Your task to perform on an android device: Go to settings Image 0: 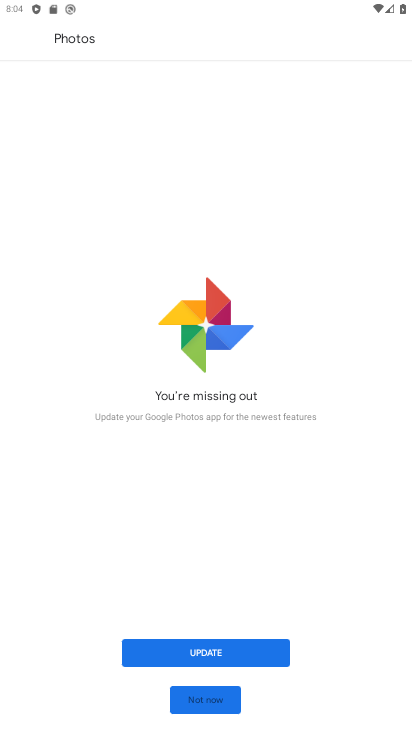
Step 0: press home button
Your task to perform on an android device: Go to settings Image 1: 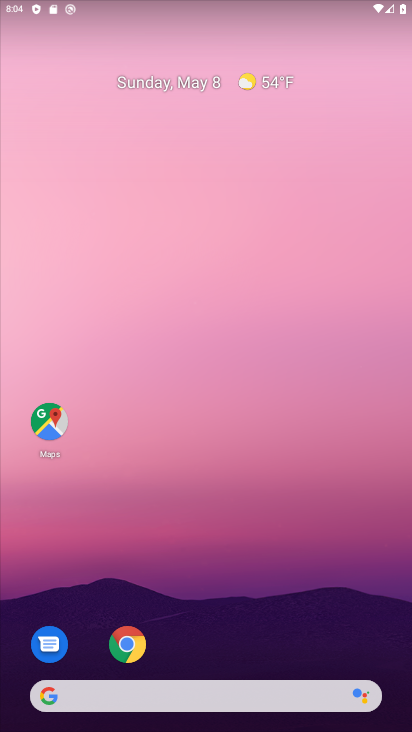
Step 1: drag from (191, 643) to (189, 436)
Your task to perform on an android device: Go to settings Image 2: 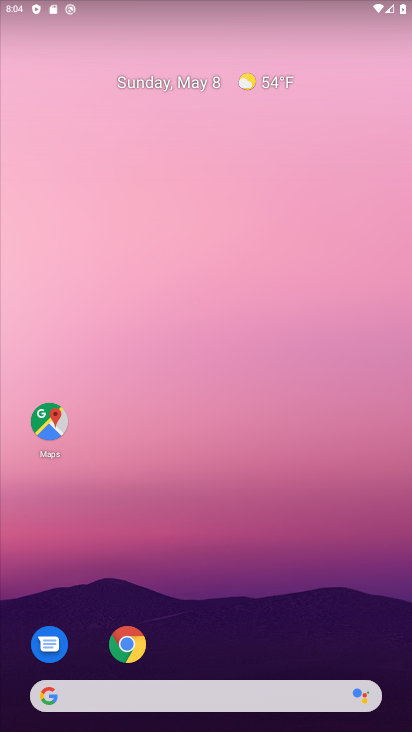
Step 2: drag from (242, 665) to (235, 369)
Your task to perform on an android device: Go to settings Image 3: 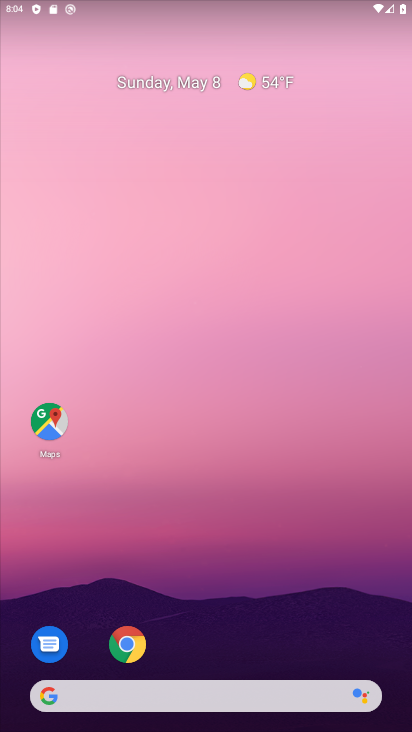
Step 3: drag from (190, 661) to (210, 262)
Your task to perform on an android device: Go to settings Image 4: 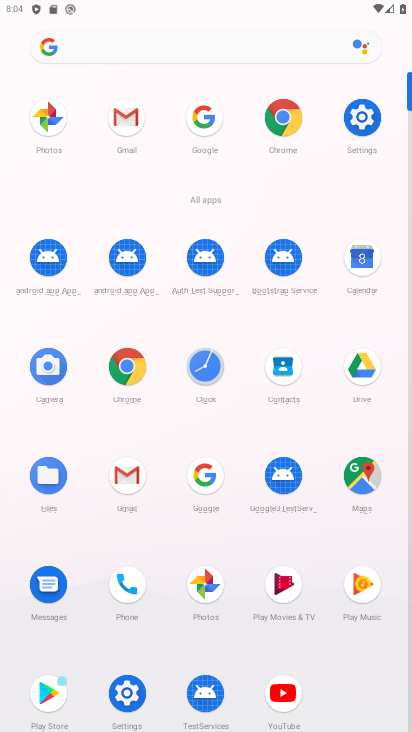
Step 4: click (357, 123)
Your task to perform on an android device: Go to settings Image 5: 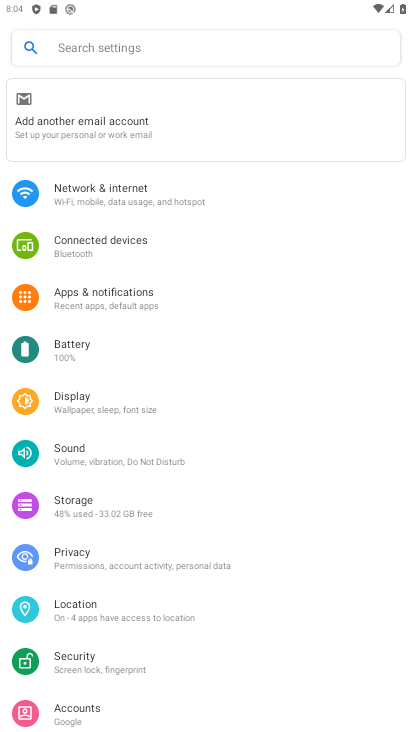
Step 5: task complete